Your task to perform on an android device: change keyboard looks Image 0: 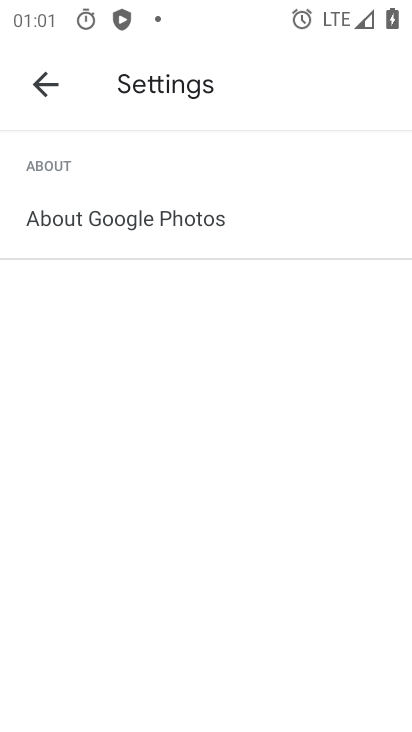
Step 0: press home button
Your task to perform on an android device: change keyboard looks Image 1: 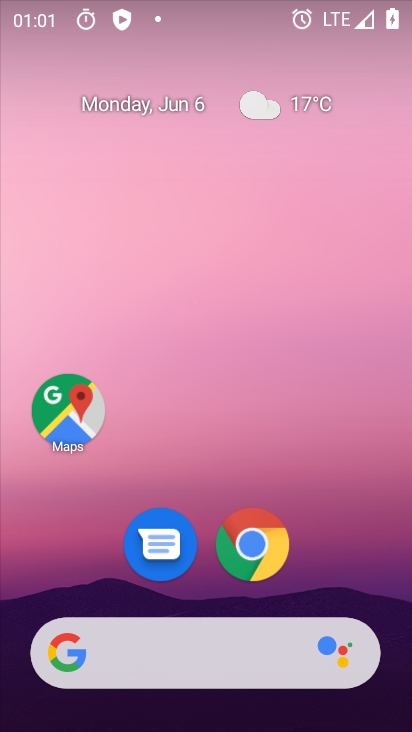
Step 1: drag from (385, 583) to (271, 187)
Your task to perform on an android device: change keyboard looks Image 2: 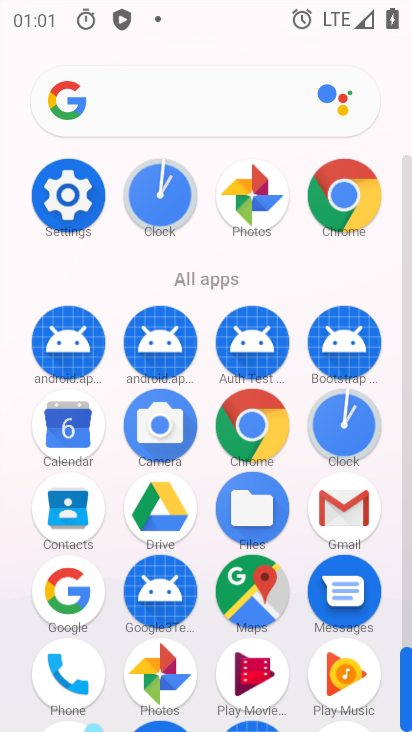
Step 2: click (75, 205)
Your task to perform on an android device: change keyboard looks Image 3: 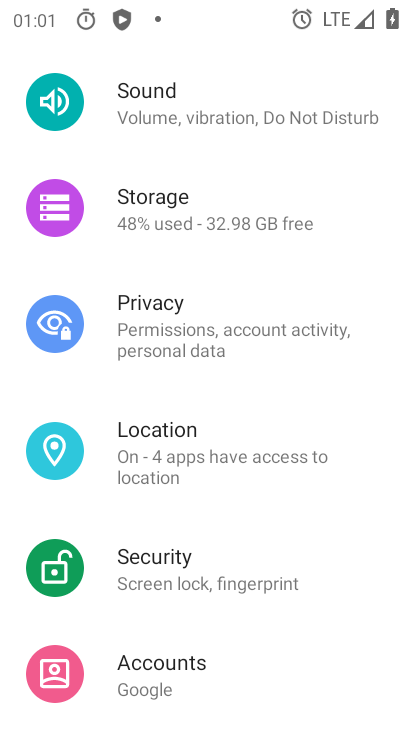
Step 3: drag from (269, 621) to (225, 163)
Your task to perform on an android device: change keyboard looks Image 4: 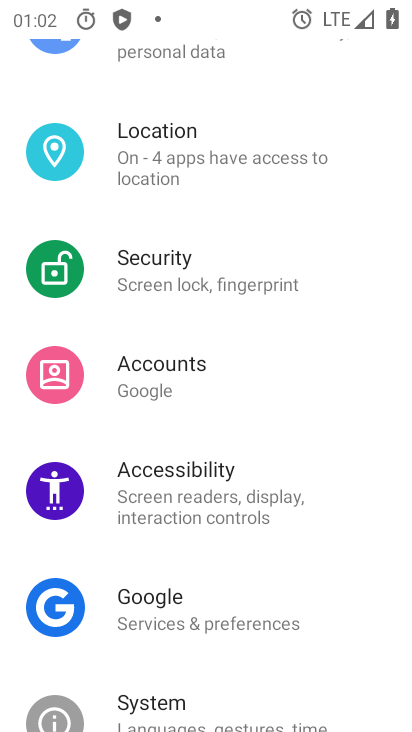
Step 4: drag from (263, 620) to (215, 260)
Your task to perform on an android device: change keyboard looks Image 5: 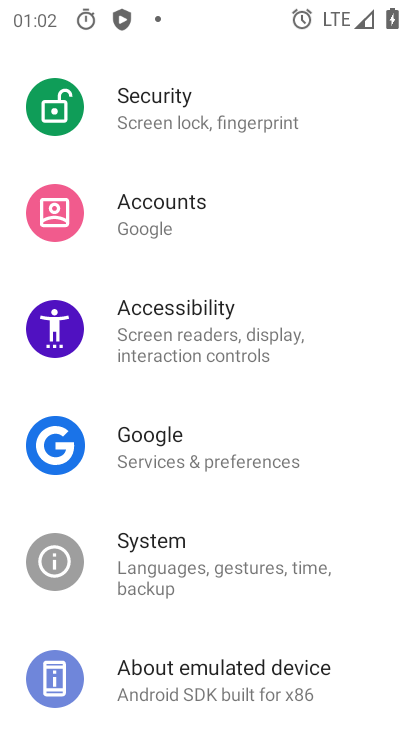
Step 5: click (237, 577)
Your task to perform on an android device: change keyboard looks Image 6: 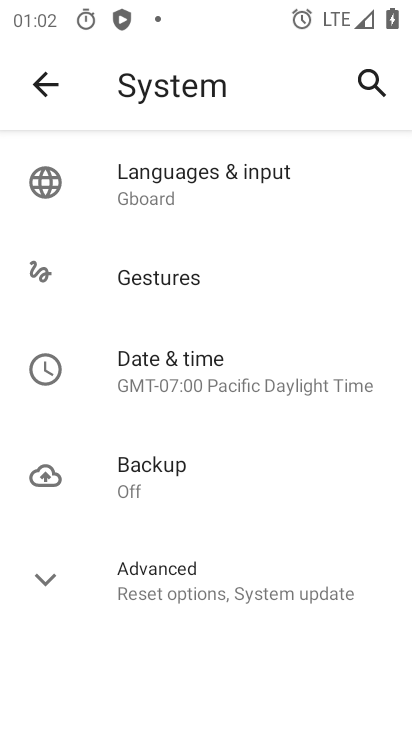
Step 6: click (235, 197)
Your task to perform on an android device: change keyboard looks Image 7: 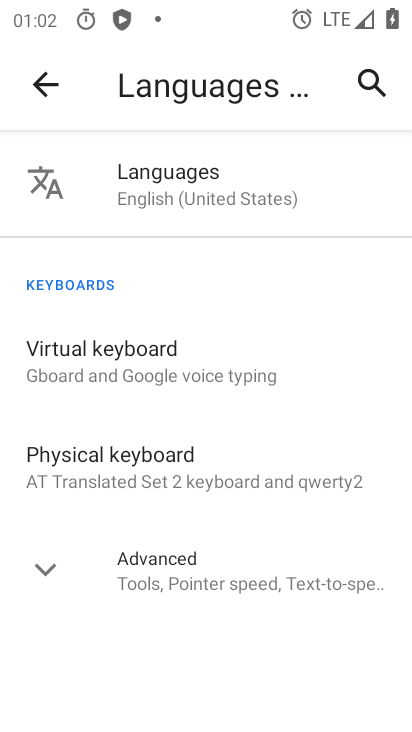
Step 7: click (194, 371)
Your task to perform on an android device: change keyboard looks Image 8: 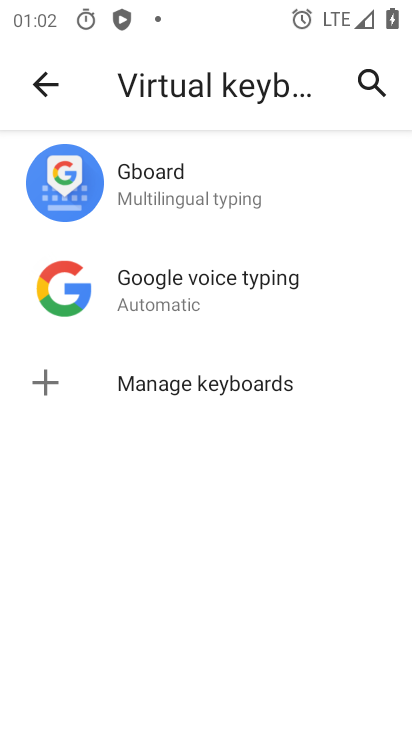
Step 8: click (217, 185)
Your task to perform on an android device: change keyboard looks Image 9: 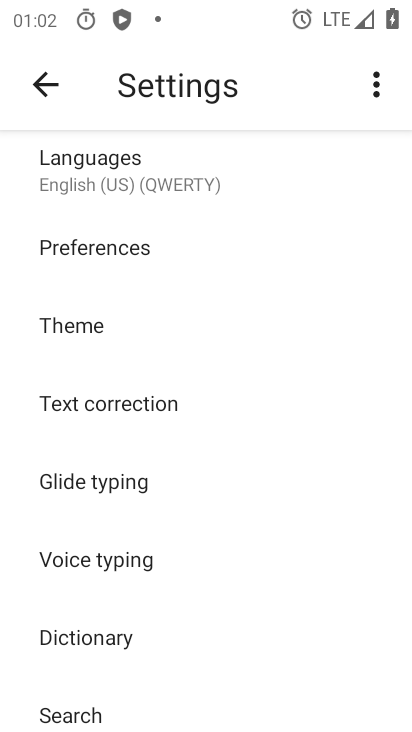
Step 9: click (181, 316)
Your task to perform on an android device: change keyboard looks Image 10: 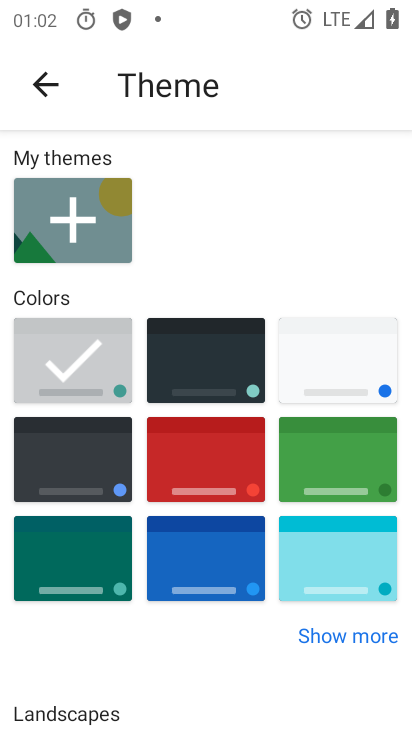
Step 10: click (191, 335)
Your task to perform on an android device: change keyboard looks Image 11: 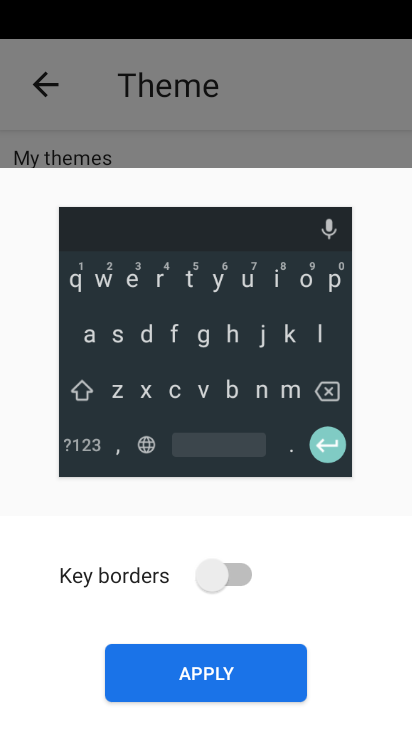
Step 11: click (287, 654)
Your task to perform on an android device: change keyboard looks Image 12: 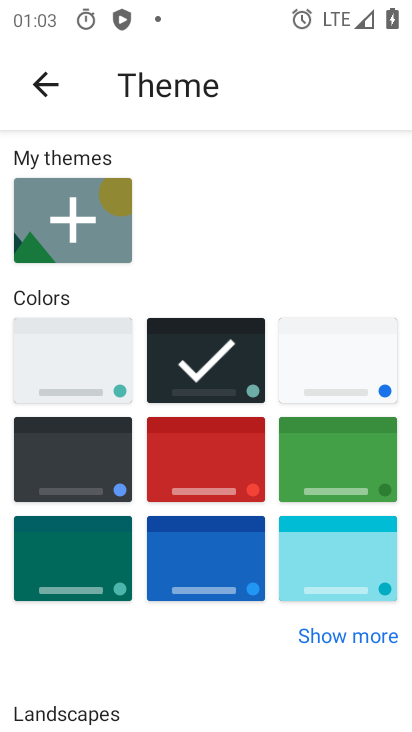
Step 12: task complete